Your task to perform on an android device: Open Google Chrome and open the bookmarks view Image 0: 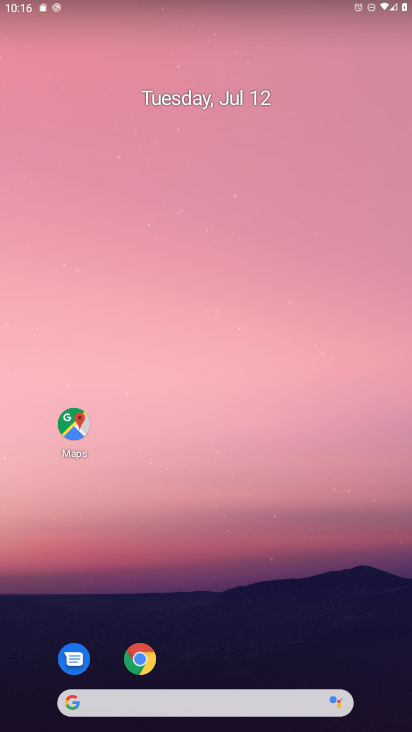
Step 0: click (139, 664)
Your task to perform on an android device: Open Google Chrome and open the bookmarks view Image 1: 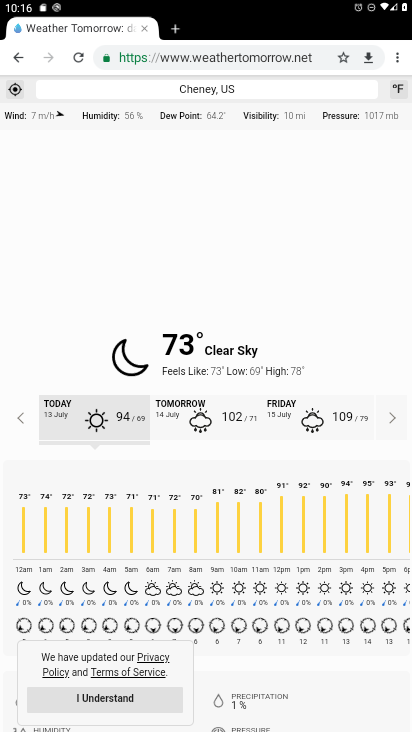
Step 1: drag from (395, 62) to (302, 111)
Your task to perform on an android device: Open Google Chrome and open the bookmarks view Image 2: 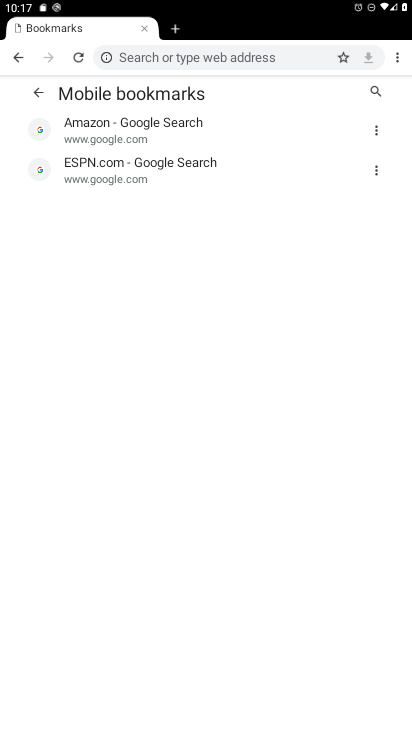
Step 2: click (176, 123)
Your task to perform on an android device: Open Google Chrome and open the bookmarks view Image 3: 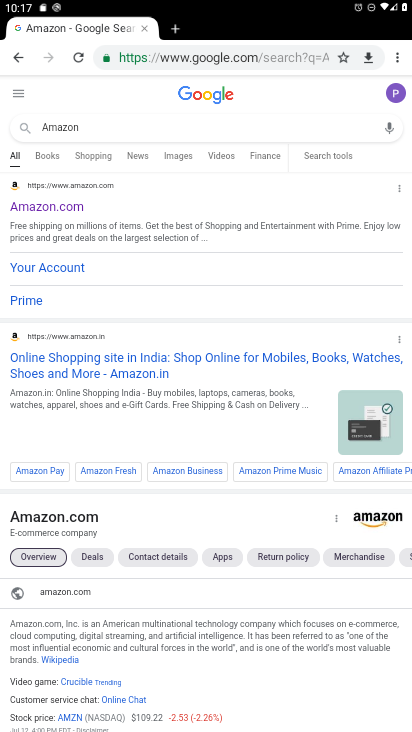
Step 3: task complete